Your task to perform on an android device: Open Chrome and go to the settings page Image 0: 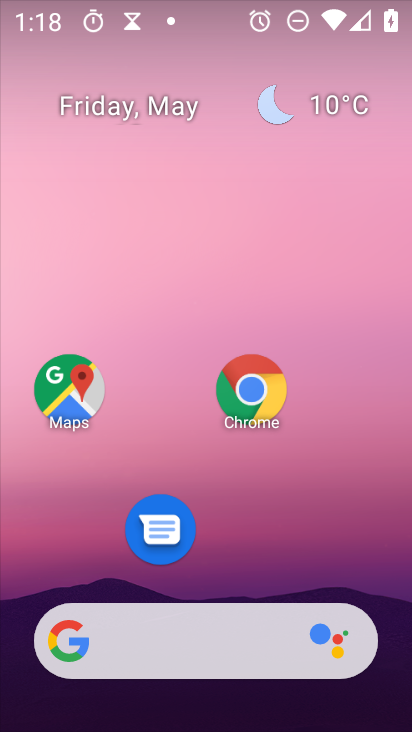
Step 0: press home button
Your task to perform on an android device: Open Chrome and go to the settings page Image 1: 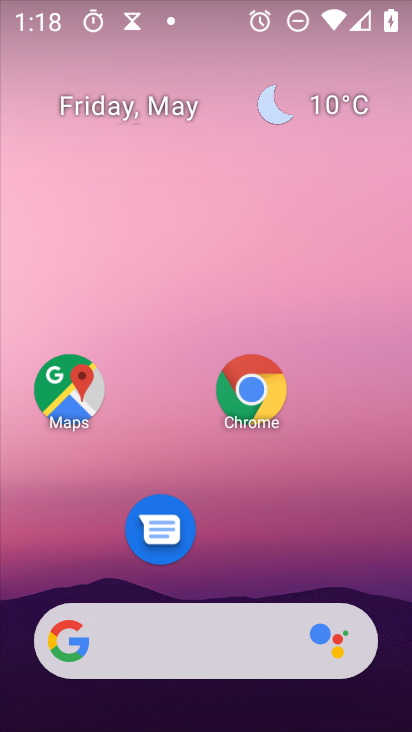
Step 1: drag from (165, 627) to (318, 141)
Your task to perform on an android device: Open Chrome and go to the settings page Image 2: 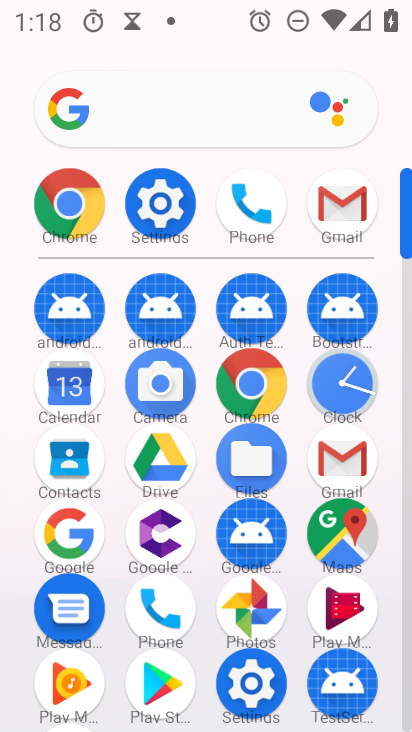
Step 2: click (89, 214)
Your task to perform on an android device: Open Chrome and go to the settings page Image 3: 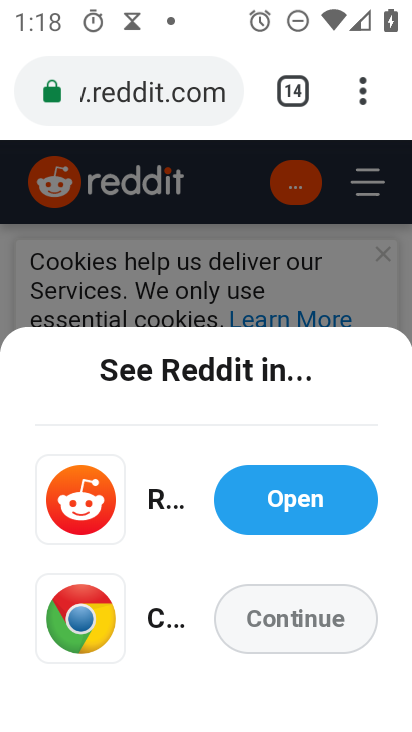
Step 3: task complete